Your task to perform on an android device: Open the calendar and show me this week's events? Image 0: 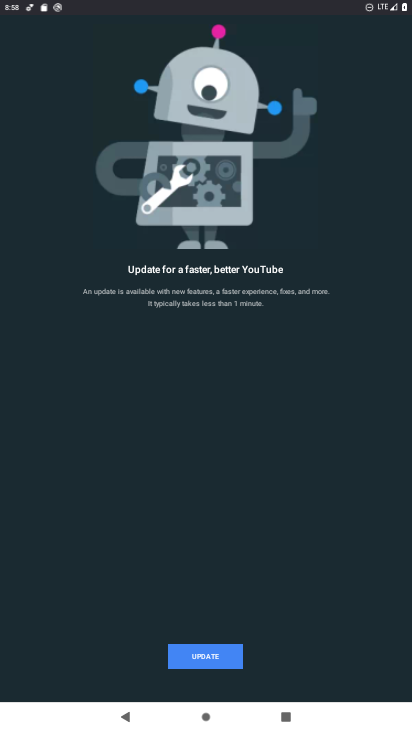
Step 0: press home button
Your task to perform on an android device: Open the calendar and show me this week's events? Image 1: 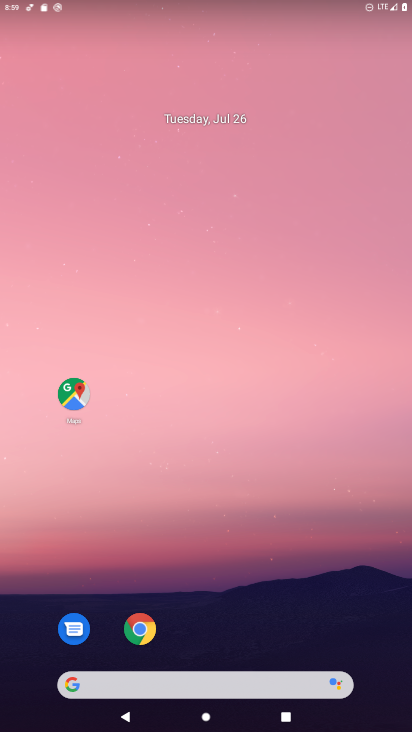
Step 1: drag from (254, 648) to (239, 220)
Your task to perform on an android device: Open the calendar and show me this week's events? Image 2: 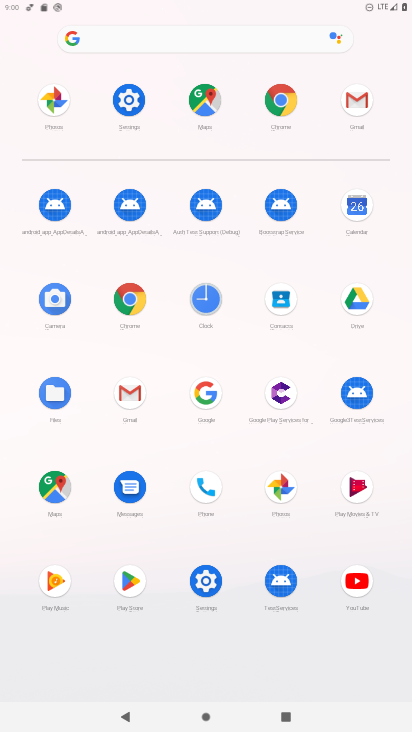
Step 2: click (355, 220)
Your task to perform on an android device: Open the calendar and show me this week's events? Image 3: 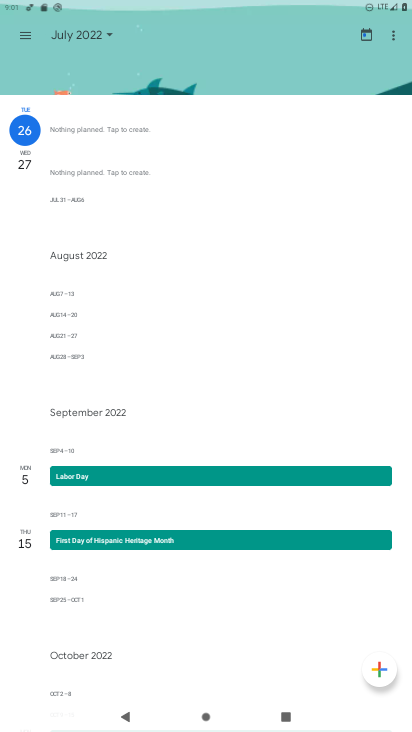
Step 3: click (99, 39)
Your task to perform on an android device: Open the calendar and show me this week's events? Image 4: 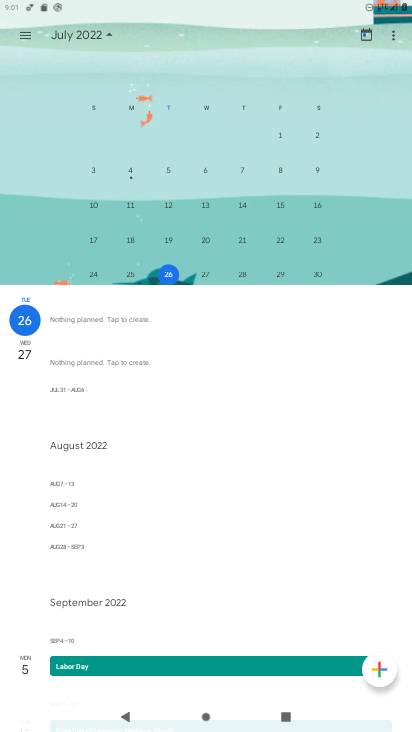
Step 4: click (310, 270)
Your task to perform on an android device: Open the calendar and show me this week's events? Image 5: 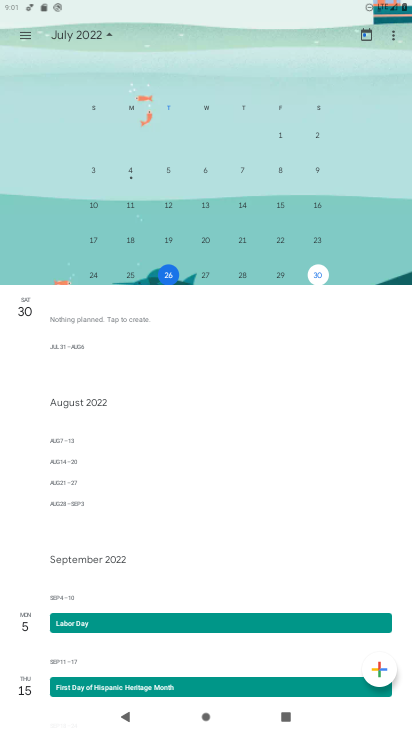
Step 5: task complete